Your task to perform on an android device: check data usage Image 0: 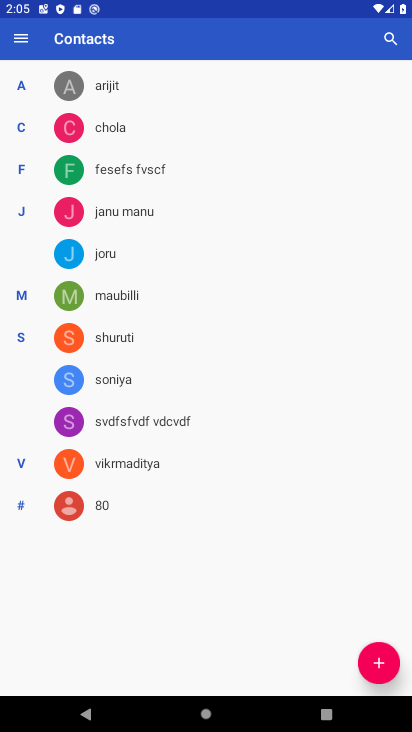
Step 0: press home button
Your task to perform on an android device: check data usage Image 1: 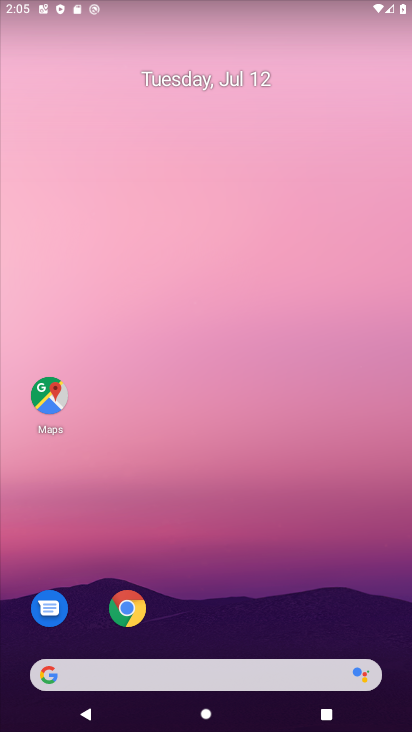
Step 1: drag from (284, 615) to (282, 109)
Your task to perform on an android device: check data usage Image 2: 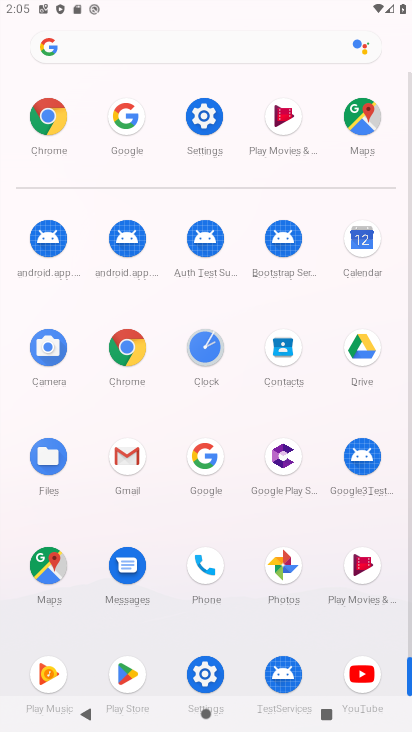
Step 2: click (209, 109)
Your task to perform on an android device: check data usage Image 3: 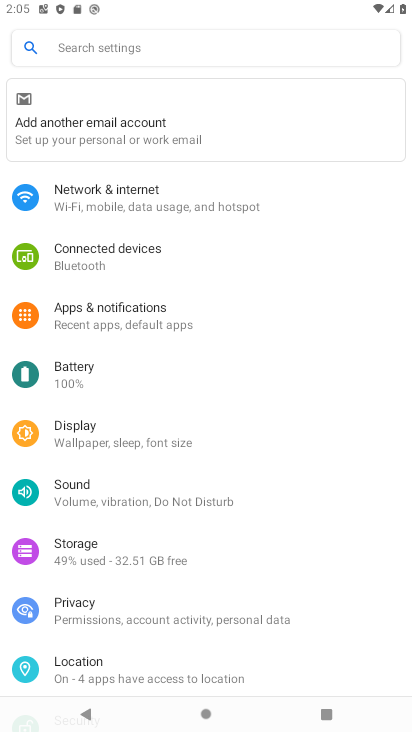
Step 3: click (112, 204)
Your task to perform on an android device: check data usage Image 4: 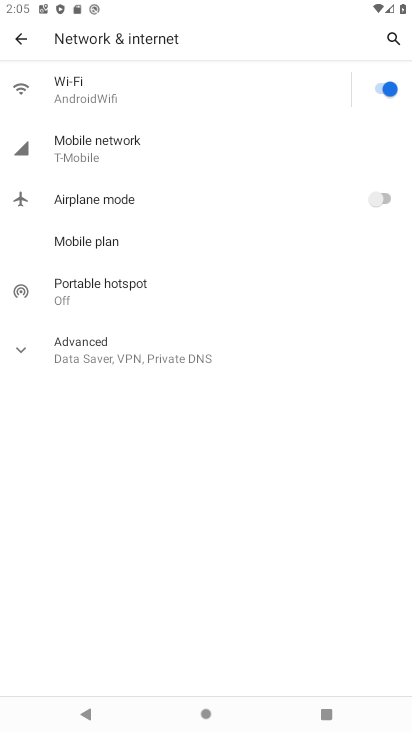
Step 4: click (102, 156)
Your task to perform on an android device: check data usage Image 5: 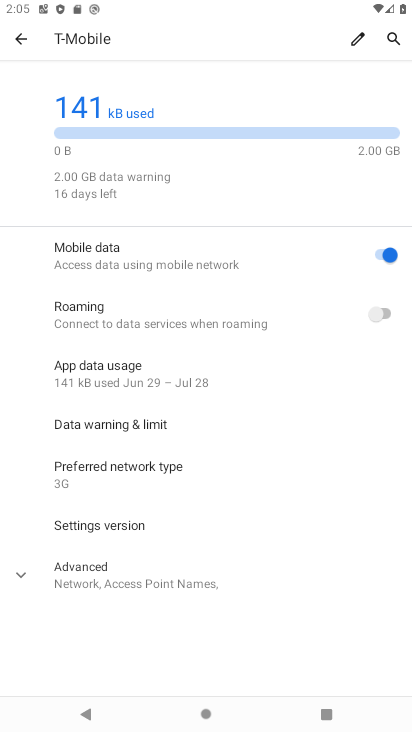
Step 5: task complete